Your task to perform on an android device: turn vacation reply on in the gmail app Image 0: 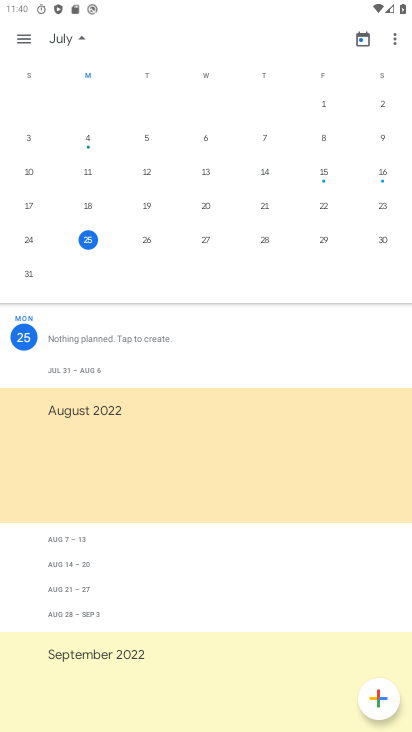
Step 0: press home button
Your task to perform on an android device: turn vacation reply on in the gmail app Image 1: 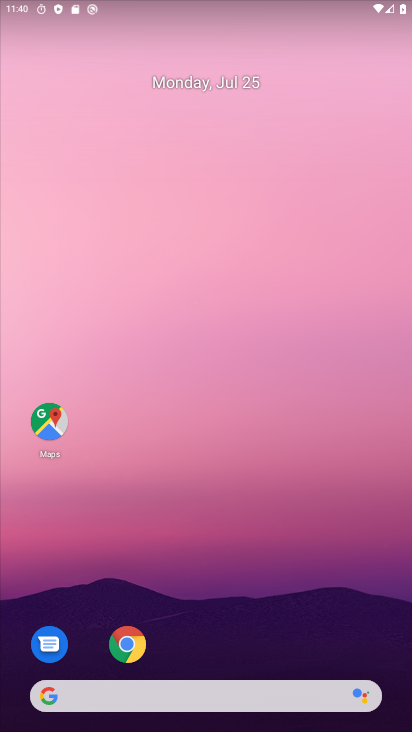
Step 1: drag from (266, 521) to (183, 1)
Your task to perform on an android device: turn vacation reply on in the gmail app Image 2: 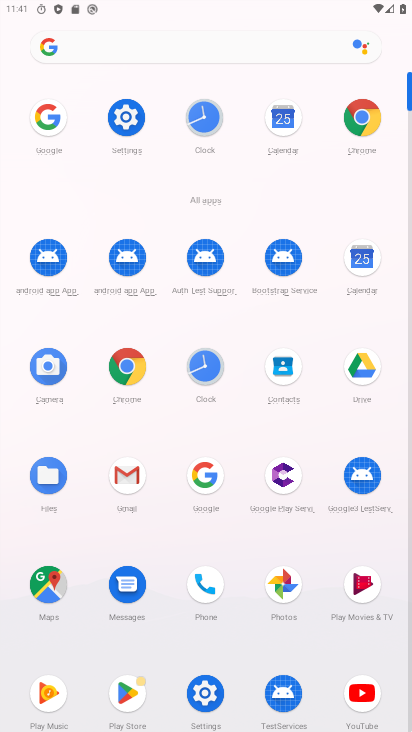
Step 2: click (116, 126)
Your task to perform on an android device: turn vacation reply on in the gmail app Image 3: 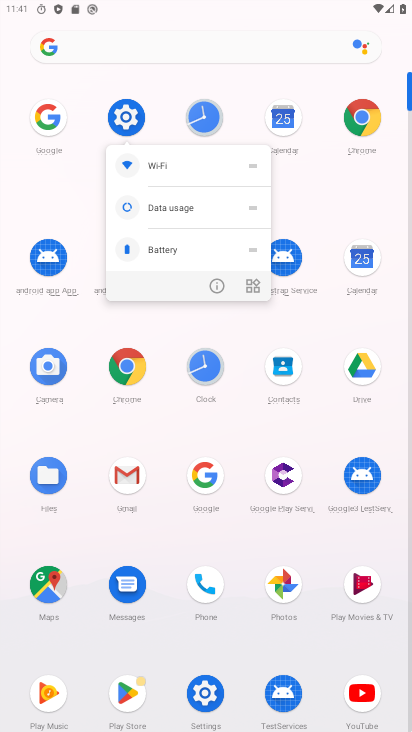
Step 3: click (107, 99)
Your task to perform on an android device: turn vacation reply on in the gmail app Image 4: 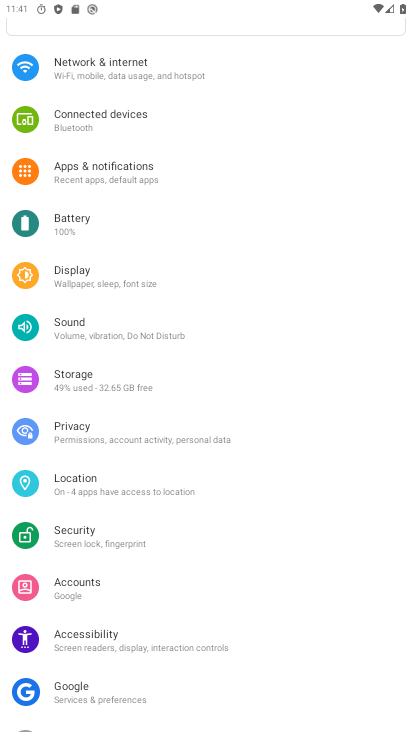
Step 4: press back button
Your task to perform on an android device: turn vacation reply on in the gmail app Image 5: 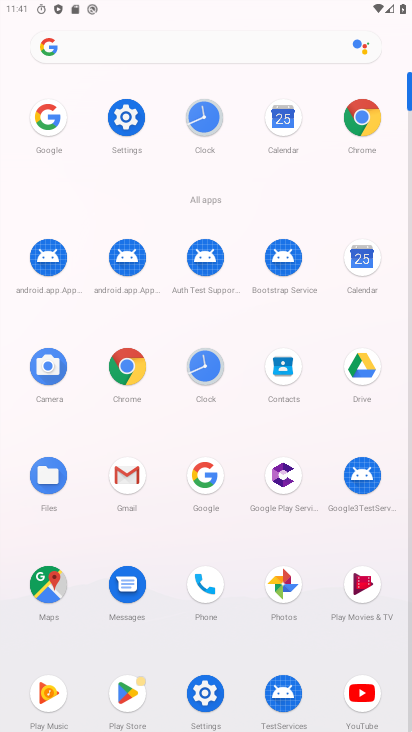
Step 5: click (107, 469)
Your task to perform on an android device: turn vacation reply on in the gmail app Image 6: 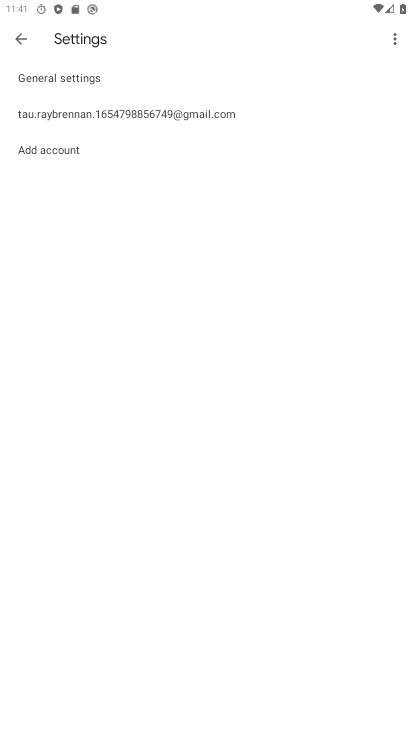
Step 6: press home button
Your task to perform on an android device: turn vacation reply on in the gmail app Image 7: 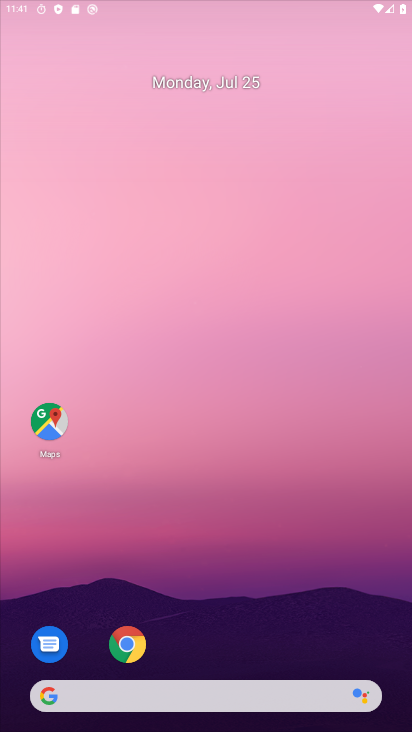
Step 7: drag from (259, 655) to (345, 74)
Your task to perform on an android device: turn vacation reply on in the gmail app Image 8: 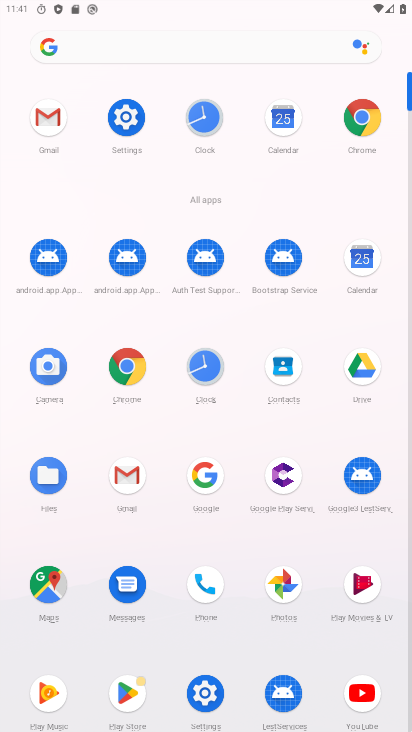
Step 8: click (46, 131)
Your task to perform on an android device: turn vacation reply on in the gmail app Image 9: 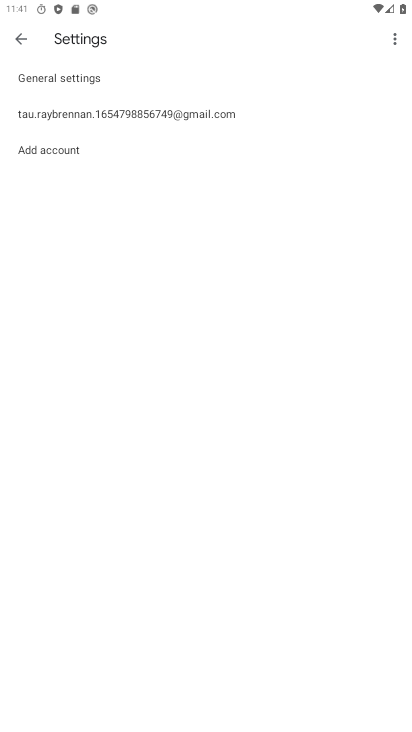
Step 9: click (12, 34)
Your task to perform on an android device: turn vacation reply on in the gmail app Image 10: 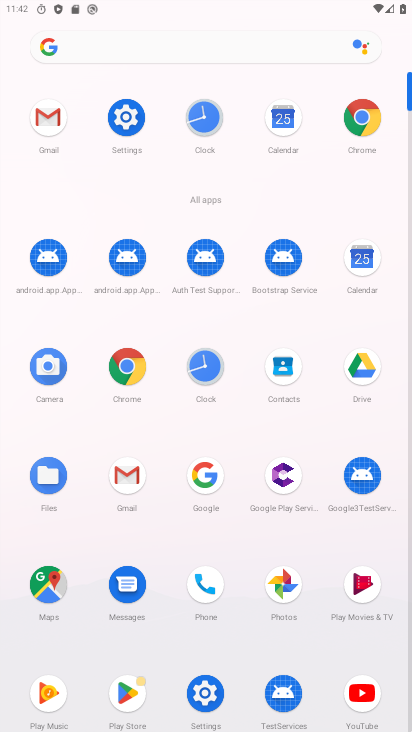
Step 10: click (43, 116)
Your task to perform on an android device: turn vacation reply on in the gmail app Image 11: 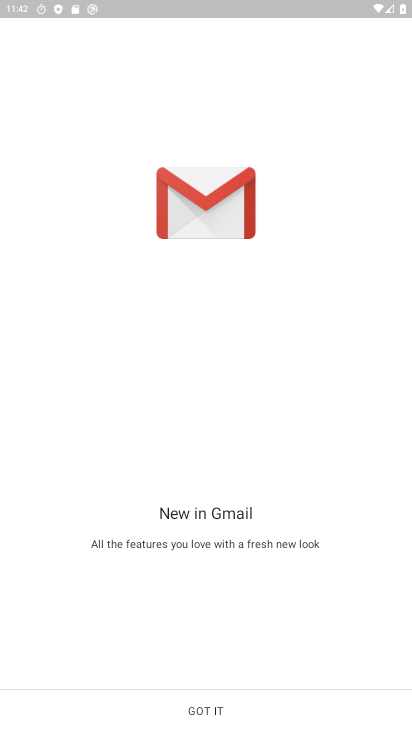
Step 11: click (192, 720)
Your task to perform on an android device: turn vacation reply on in the gmail app Image 12: 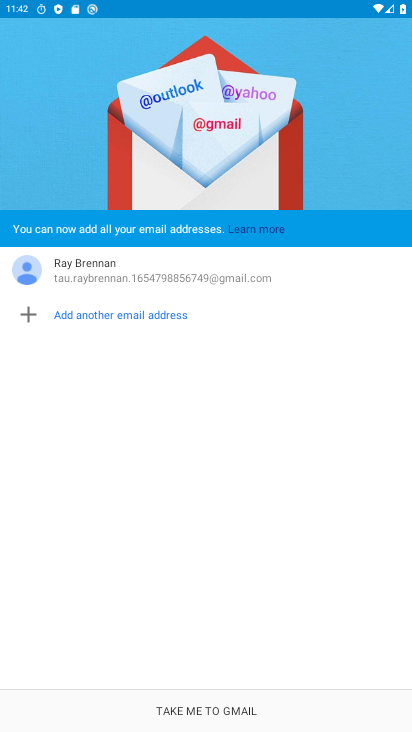
Step 12: click (192, 714)
Your task to perform on an android device: turn vacation reply on in the gmail app Image 13: 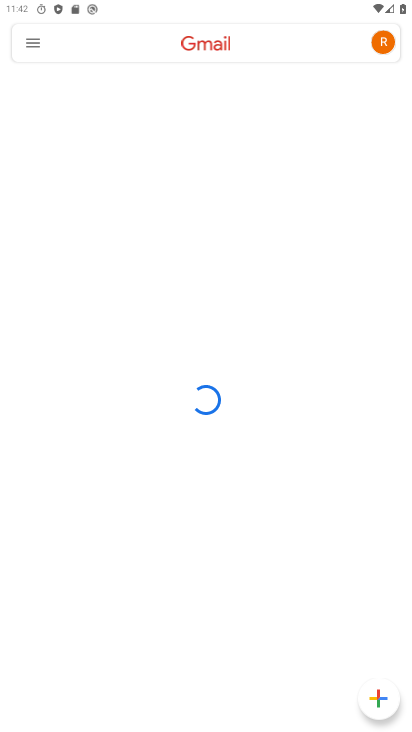
Step 13: click (20, 42)
Your task to perform on an android device: turn vacation reply on in the gmail app Image 14: 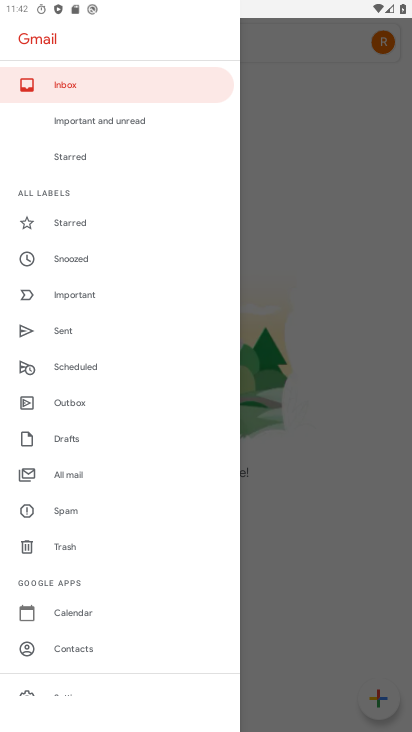
Step 14: drag from (176, 511) to (240, 163)
Your task to perform on an android device: turn vacation reply on in the gmail app Image 15: 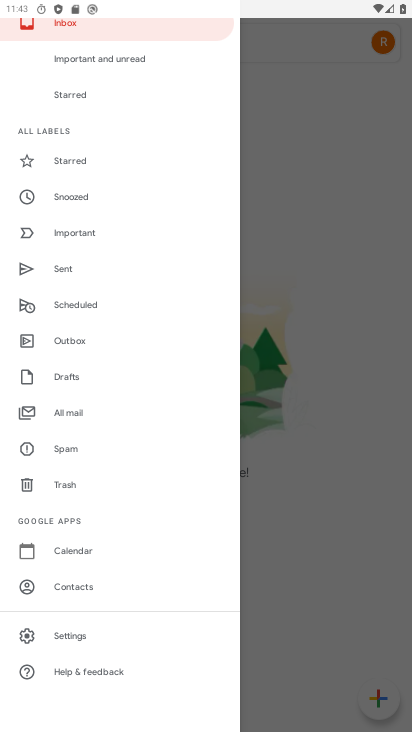
Step 15: click (66, 640)
Your task to perform on an android device: turn vacation reply on in the gmail app Image 16: 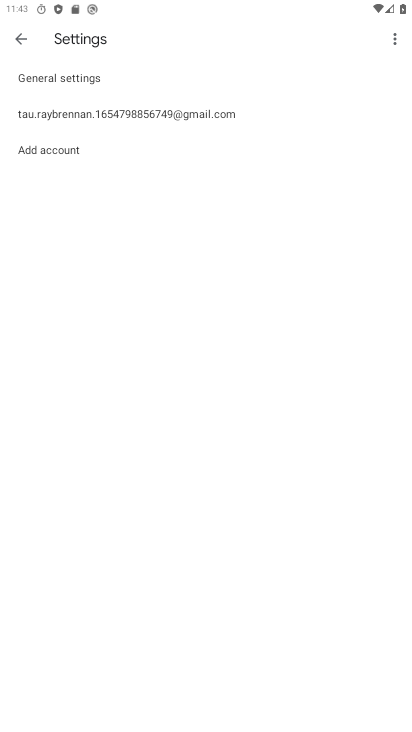
Step 16: click (45, 114)
Your task to perform on an android device: turn vacation reply on in the gmail app Image 17: 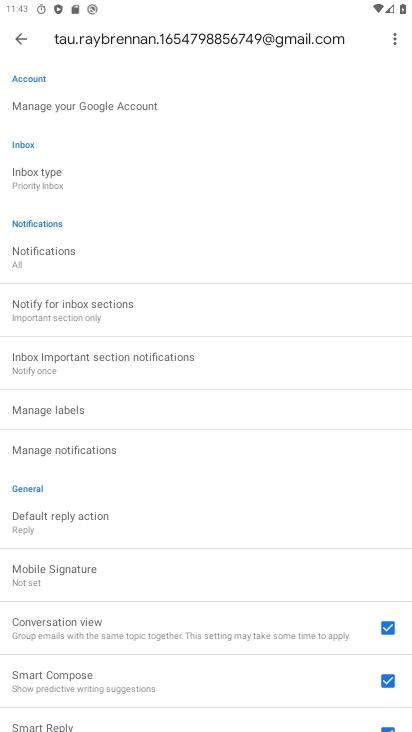
Step 17: drag from (75, 606) to (104, 112)
Your task to perform on an android device: turn vacation reply on in the gmail app Image 18: 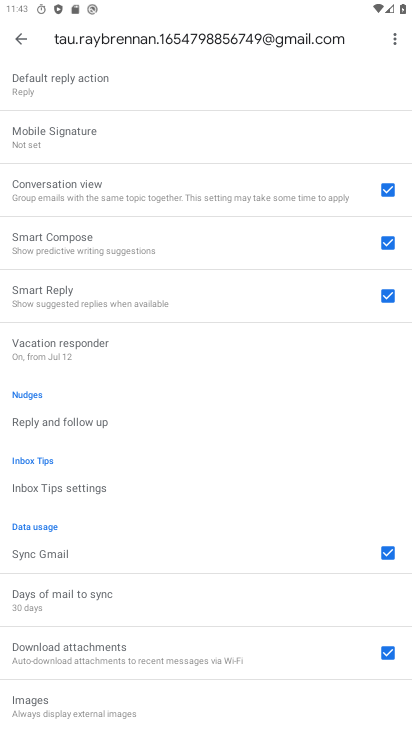
Step 18: click (82, 345)
Your task to perform on an android device: turn vacation reply on in the gmail app Image 19: 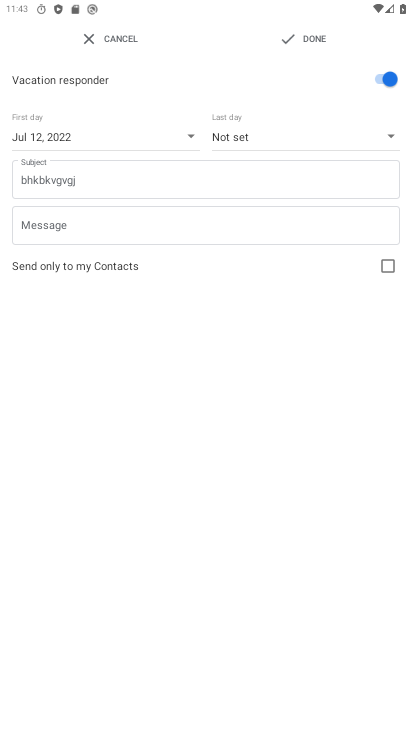
Step 19: task complete